Your task to perform on an android device: Go to display settings Image 0: 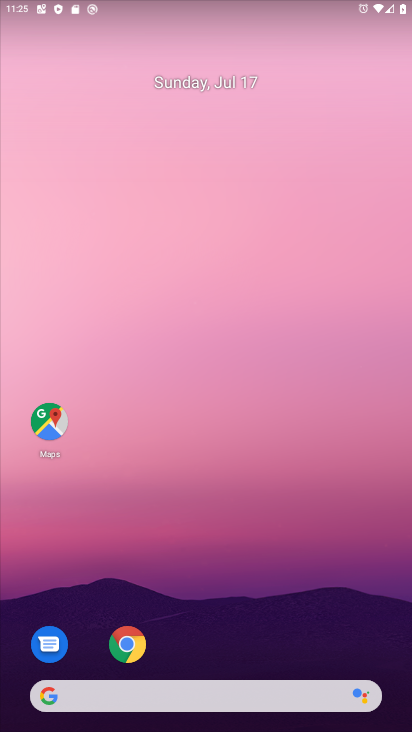
Step 0: drag from (310, 604) to (331, 105)
Your task to perform on an android device: Go to display settings Image 1: 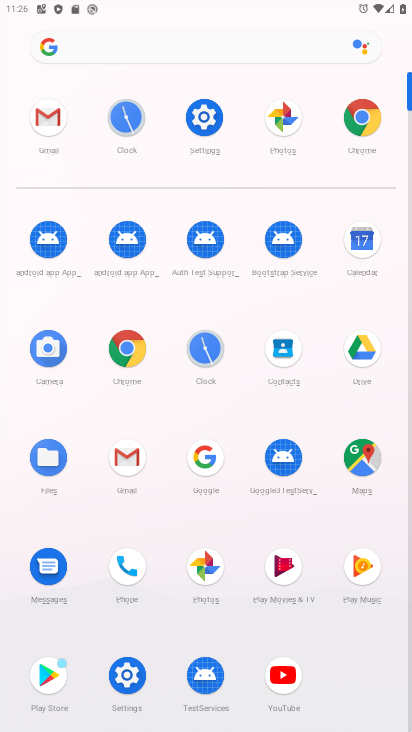
Step 1: click (203, 118)
Your task to perform on an android device: Go to display settings Image 2: 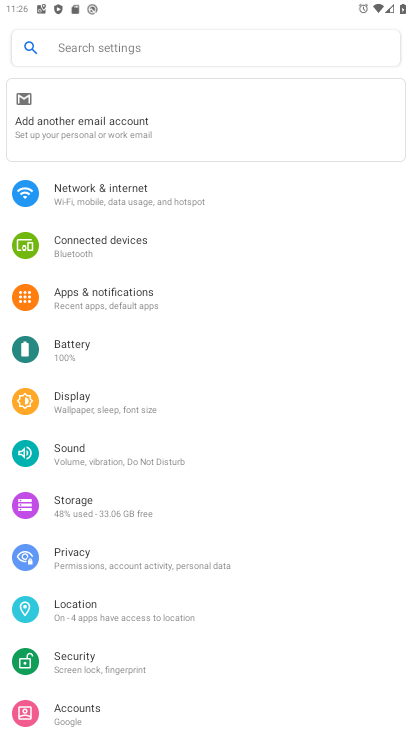
Step 2: click (103, 404)
Your task to perform on an android device: Go to display settings Image 3: 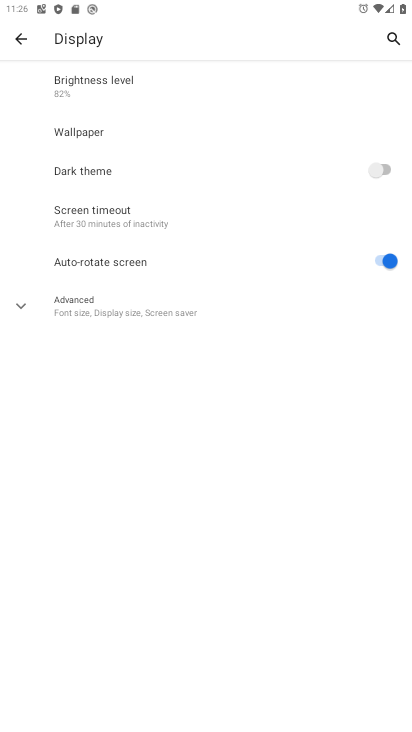
Step 3: task complete